Your task to perform on an android device: Open Android settings Image 0: 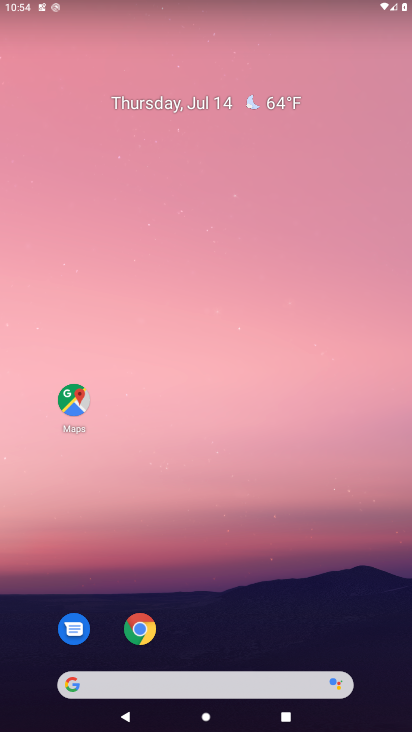
Step 0: drag from (220, 569) to (220, 261)
Your task to perform on an android device: Open Android settings Image 1: 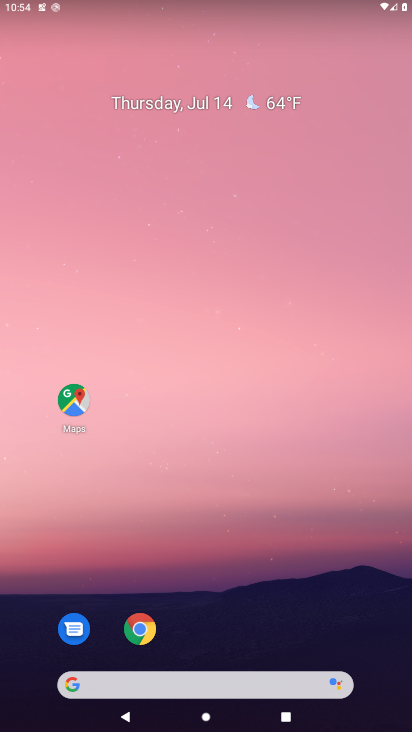
Step 1: drag from (213, 640) to (242, 258)
Your task to perform on an android device: Open Android settings Image 2: 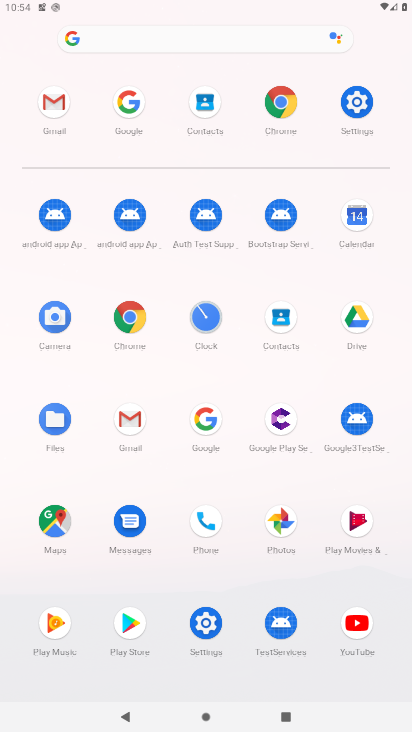
Step 2: click (363, 104)
Your task to perform on an android device: Open Android settings Image 3: 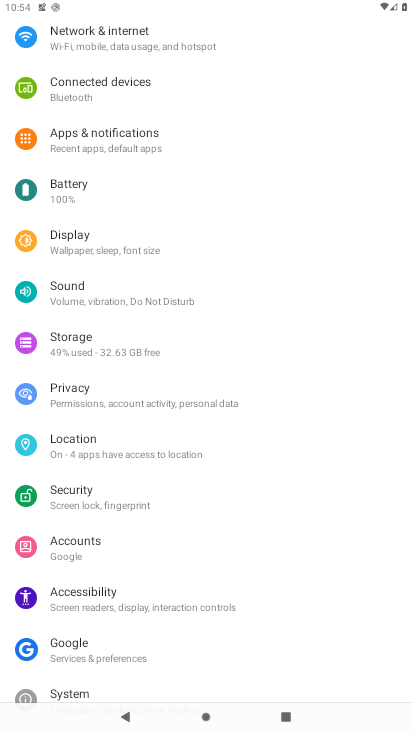
Step 3: task complete